Your task to perform on an android device: Open settings on Google Maps Image 0: 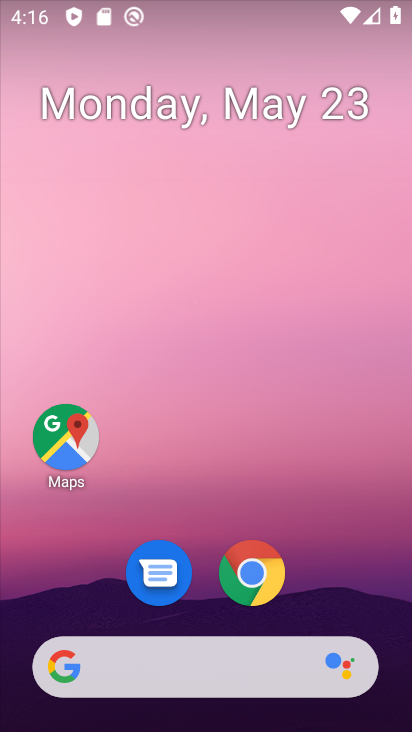
Step 0: drag from (209, 725) to (209, 142)
Your task to perform on an android device: Open settings on Google Maps Image 1: 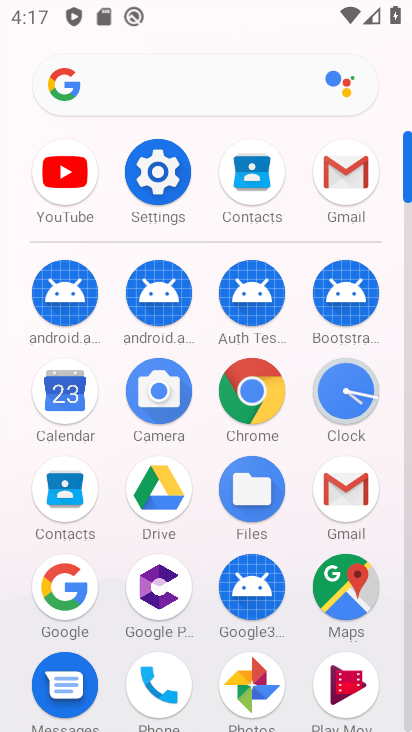
Step 1: click (350, 585)
Your task to perform on an android device: Open settings on Google Maps Image 2: 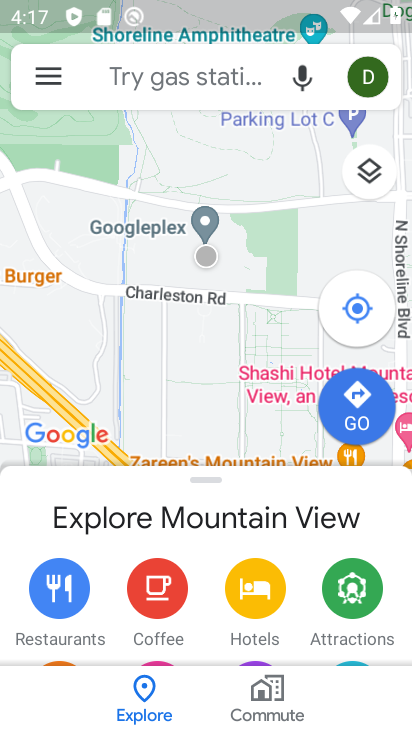
Step 2: task complete